Your task to perform on an android device: Search for Italian restaurants on Maps Image 0: 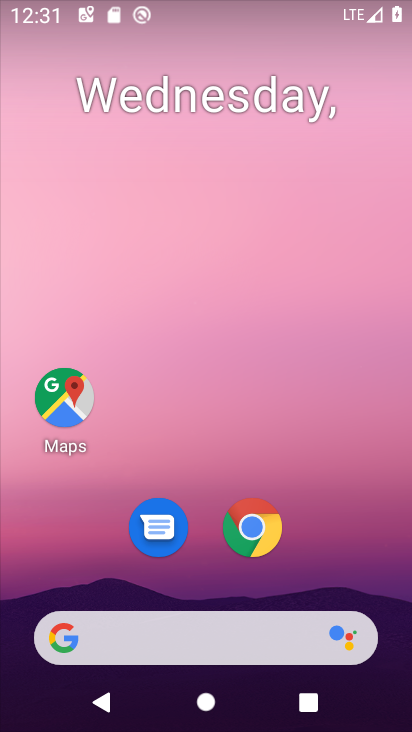
Step 0: drag from (207, 619) to (194, 41)
Your task to perform on an android device: Search for Italian restaurants on Maps Image 1: 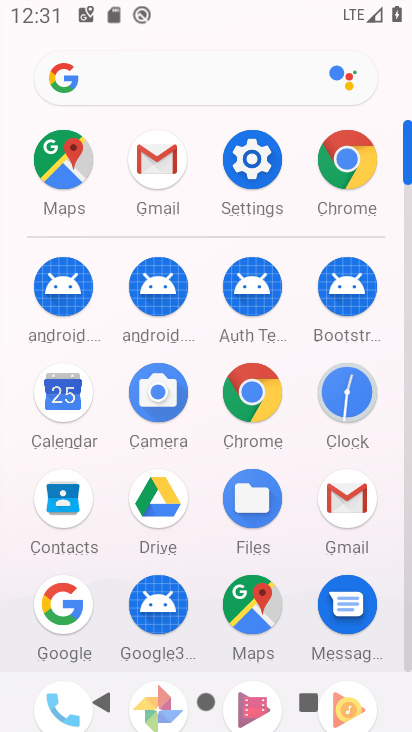
Step 1: click (250, 613)
Your task to perform on an android device: Search for Italian restaurants on Maps Image 2: 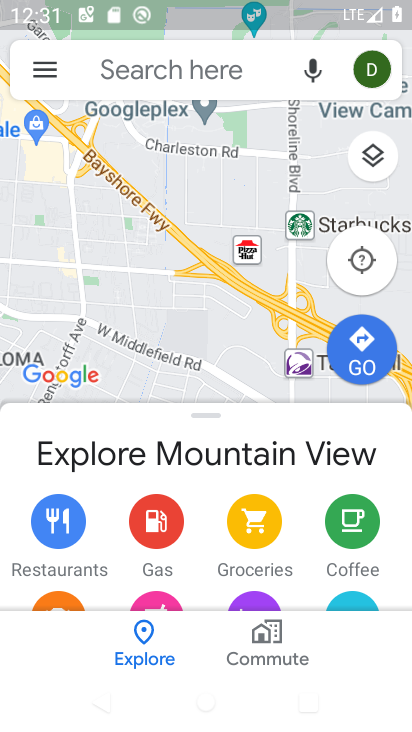
Step 2: click (223, 79)
Your task to perform on an android device: Search for Italian restaurants on Maps Image 3: 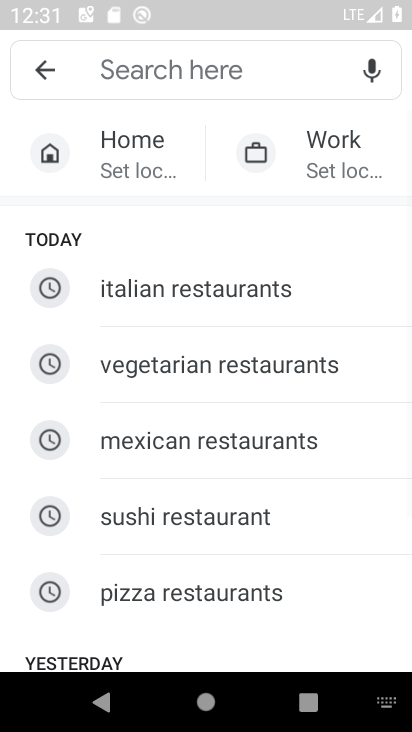
Step 3: click (180, 300)
Your task to perform on an android device: Search for Italian restaurants on Maps Image 4: 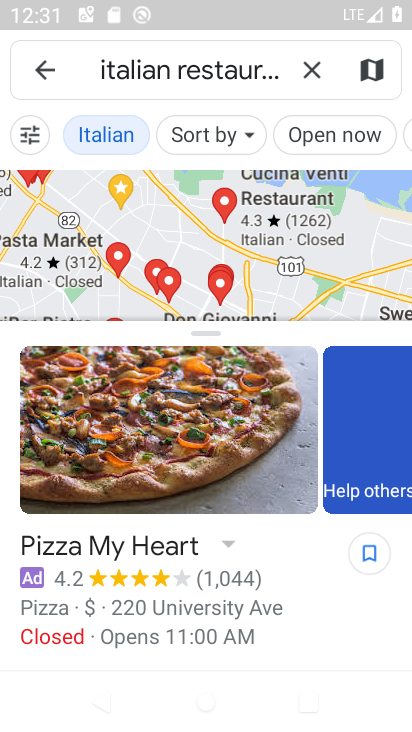
Step 4: task complete